Your task to perform on an android device: Open the calendar and show me this week's events Image 0: 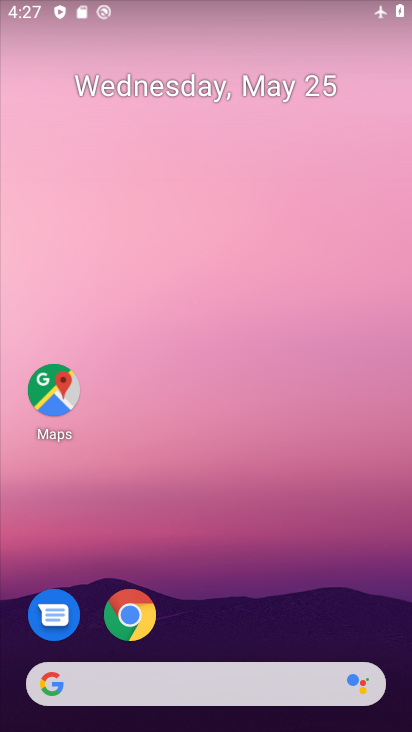
Step 0: drag from (305, 617) to (308, 73)
Your task to perform on an android device: Open the calendar and show me this week's events Image 1: 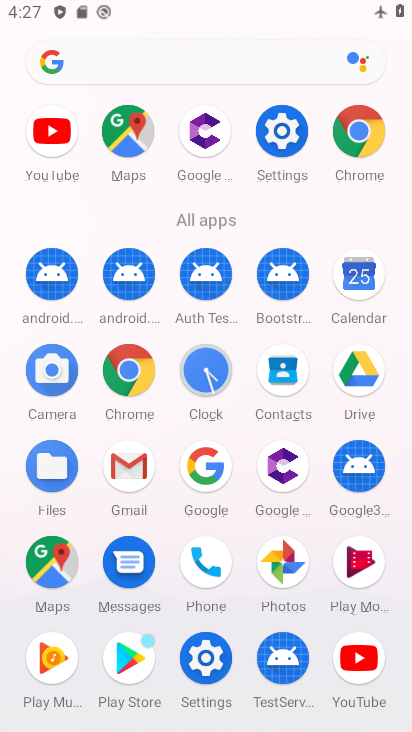
Step 1: drag from (250, 525) to (235, 291)
Your task to perform on an android device: Open the calendar and show me this week's events Image 2: 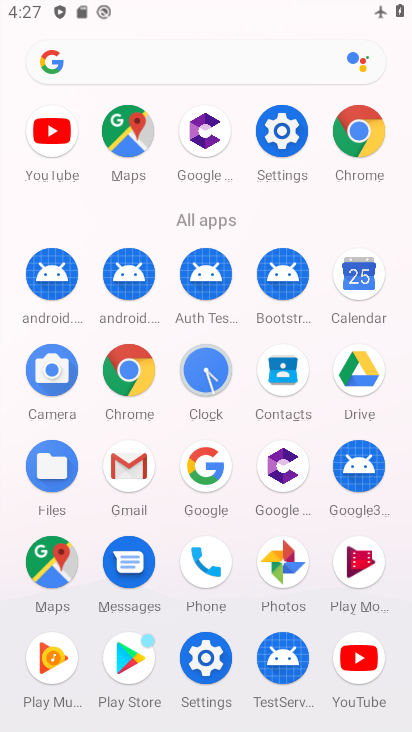
Step 2: click (366, 281)
Your task to perform on an android device: Open the calendar and show me this week's events Image 3: 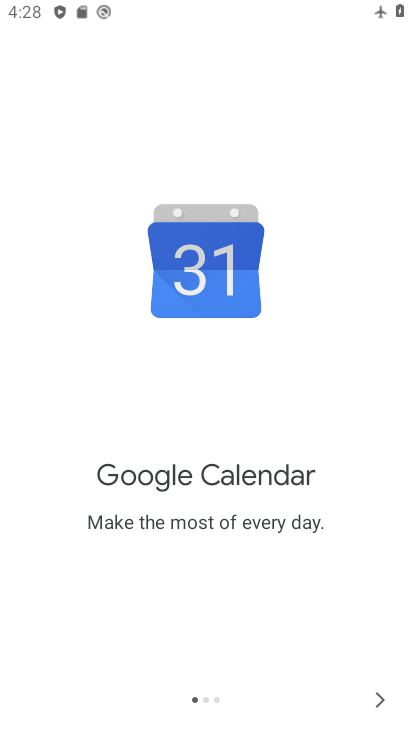
Step 3: click (378, 697)
Your task to perform on an android device: Open the calendar and show me this week's events Image 4: 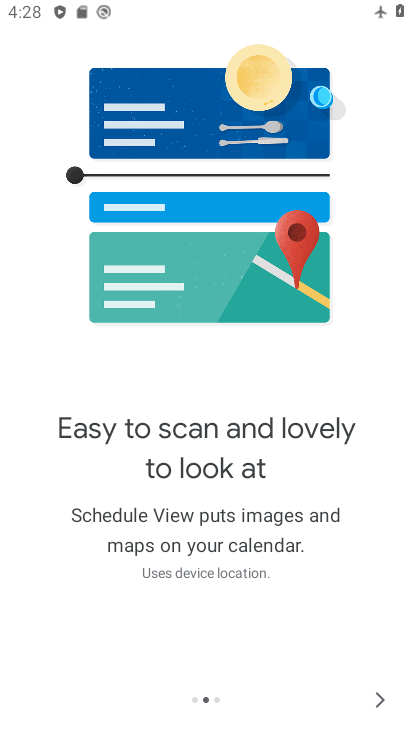
Step 4: click (378, 697)
Your task to perform on an android device: Open the calendar and show me this week's events Image 5: 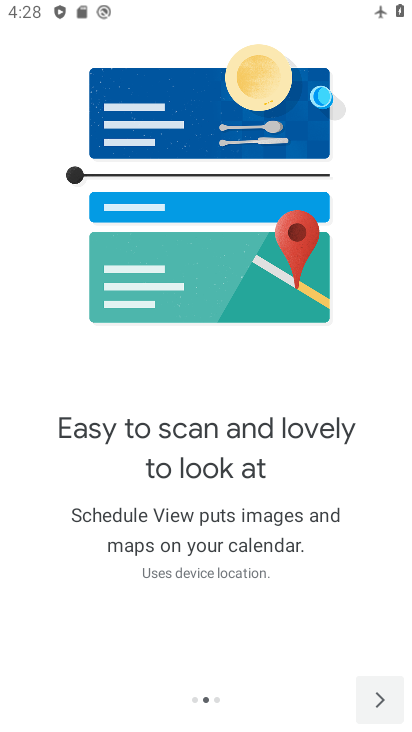
Step 5: click (378, 697)
Your task to perform on an android device: Open the calendar and show me this week's events Image 6: 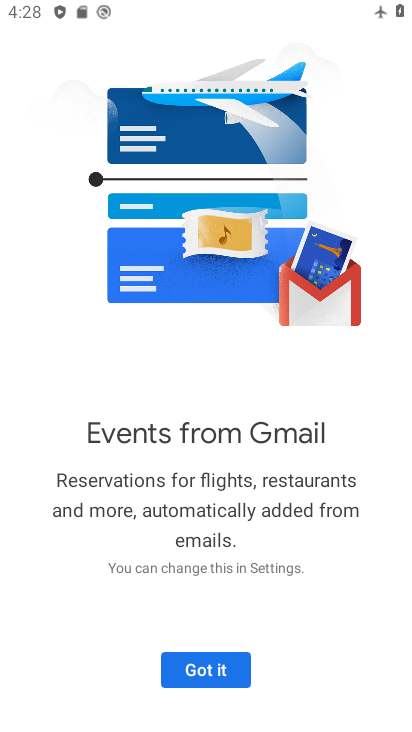
Step 6: click (378, 697)
Your task to perform on an android device: Open the calendar and show me this week's events Image 7: 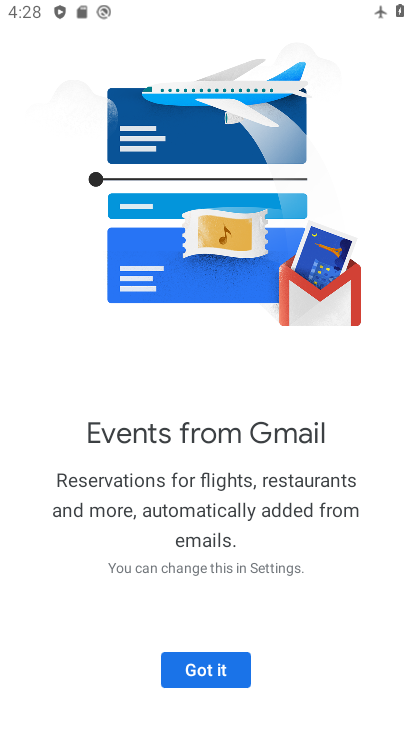
Step 7: click (214, 653)
Your task to perform on an android device: Open the calendar and show me this week's events Image 8: 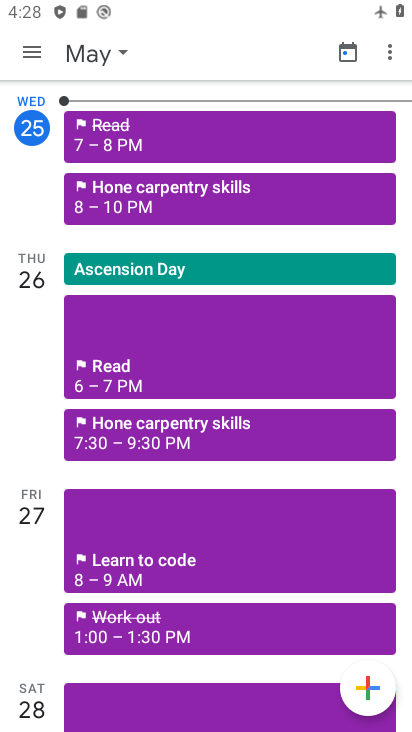
Step 8: click (132, 47)
Your task to perform on an android device: Open the calendar and show me this week's events Image 9: 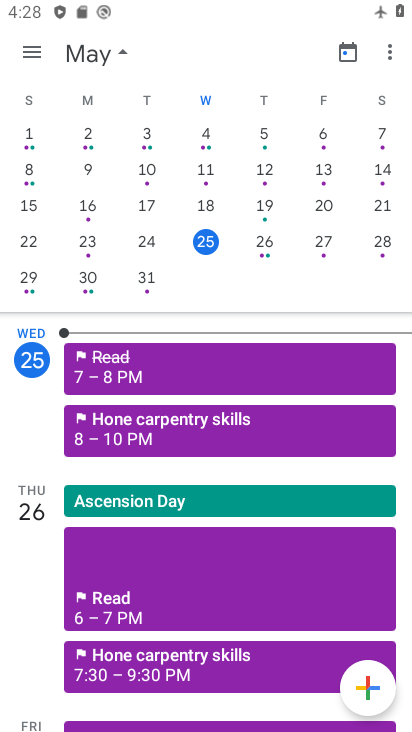
Step 9: click (327, 236)
Your task to perform on an android device: Open the calendar and show me this week's events Image 10: 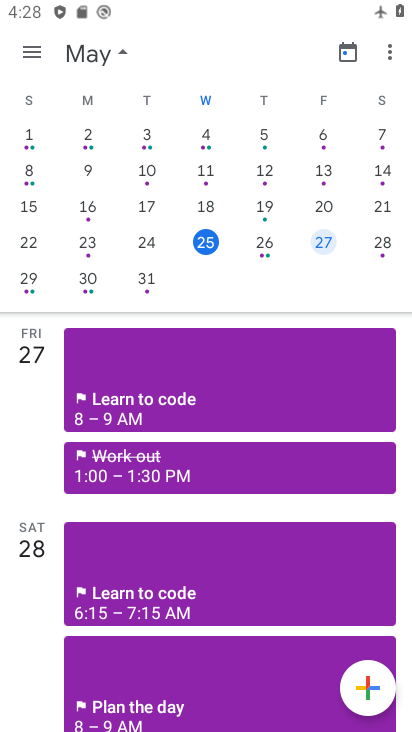
Step 10: click (118, 49)
Your task to perform on an android device: Open the calendar and show me this week's events Image 11: 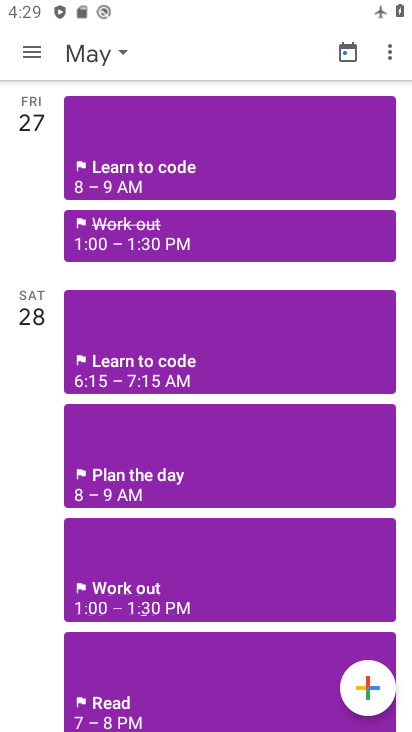
Step 11: task complete